Your task to perform on an android device: turn off data saver in the chrome app Image 0: 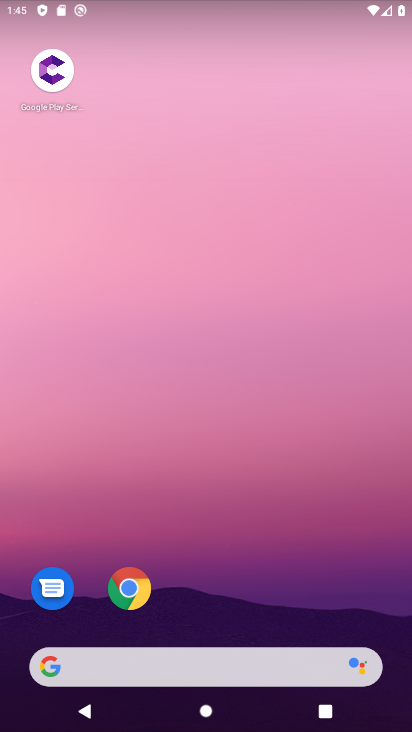
Step 0: drag from (193, 620) to (212, 348)
Your task to perform on an android device: turn off data saver in the chrome app Image 1: 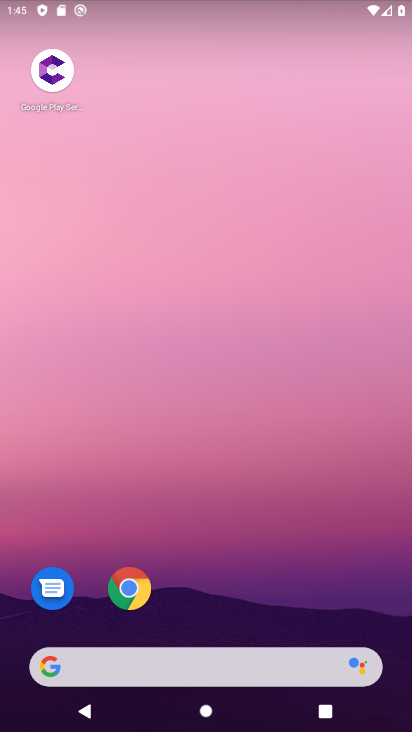
Step 1: click (129, 602)
Your task to perform on an android device: turn off data saver in the chrome app Image 2: 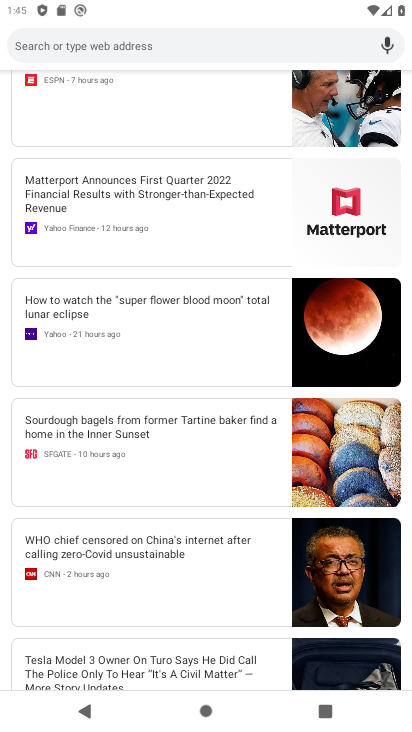
Step 2: drag from (115, 70) to (157, 561)
Your task to perform on an android device: turn off data saver in the chrome app Image 3: 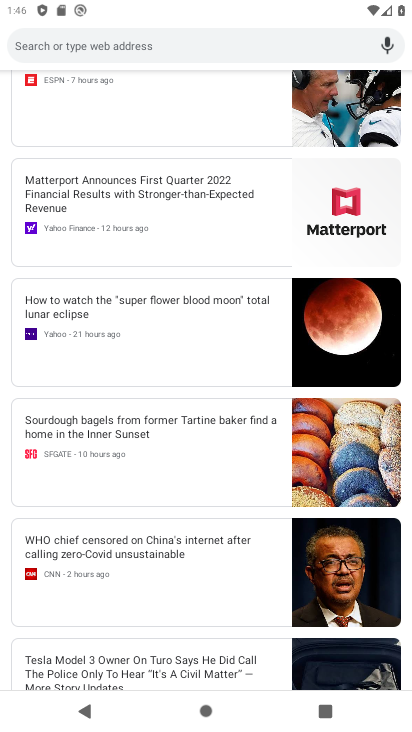
Step 3: drag from (163, 180) to (179, 615)
Your task to perform on an android device: turn off data saver in the chrome app Image 4: 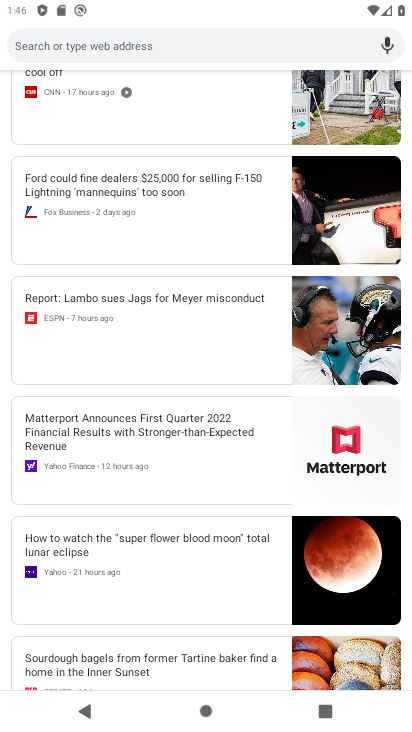
Step 4: drag from (250, 107) to (290, 571)
Your task to perform on an android device: turn off data saver in the chrome app Image 5: 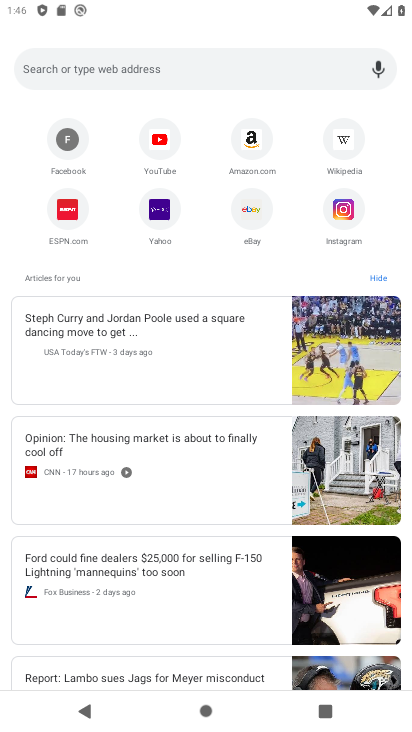
Step 5: drag from (208, 163) to (232, 622)
Your task to perform on an android device: turn off data saver in the chrome app Image 6: 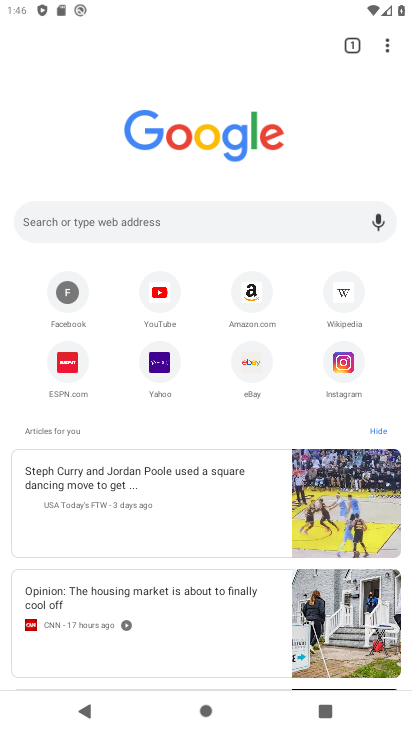
Step 6: click (395, 46)
Your task to perform on an android device: turn off data saver in the chrome app Image 7: 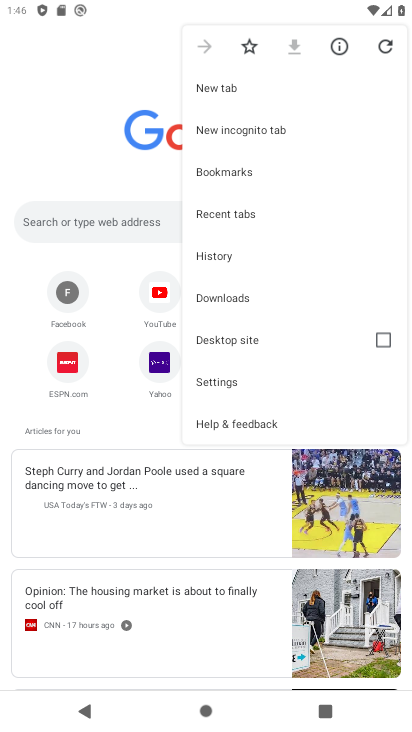
Step 7: click (254, 396)
Your task to perform on an android device: turn off data saver in the chrome app Image 8: 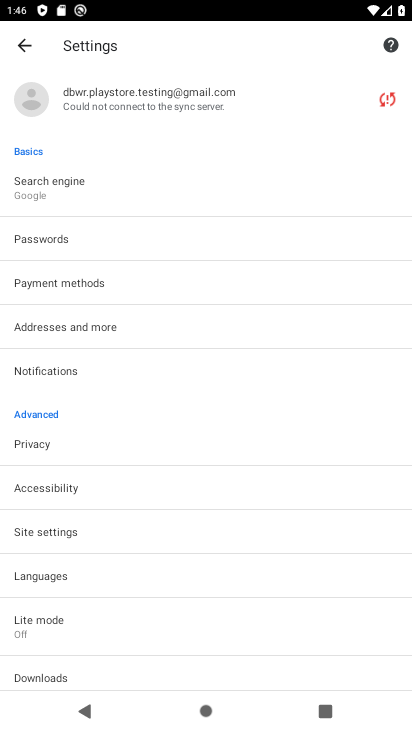
Step 8: click (68, 613)
Your task to perform on an android device: turn off data saver in the chrome app Image 9: 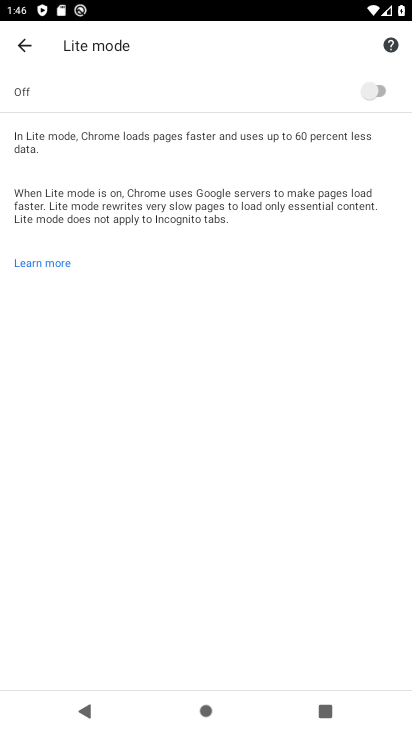
Step 9: task complete